Your task to perform on an android device: change the clock display to analog Image 0: 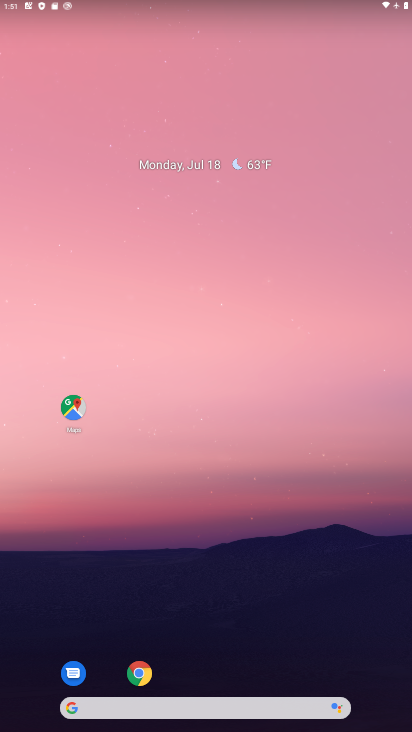
Step 0: drag from (207, 633) to (237, 43)
Your task to perform on an android device: change the clock display to analog Image 1: 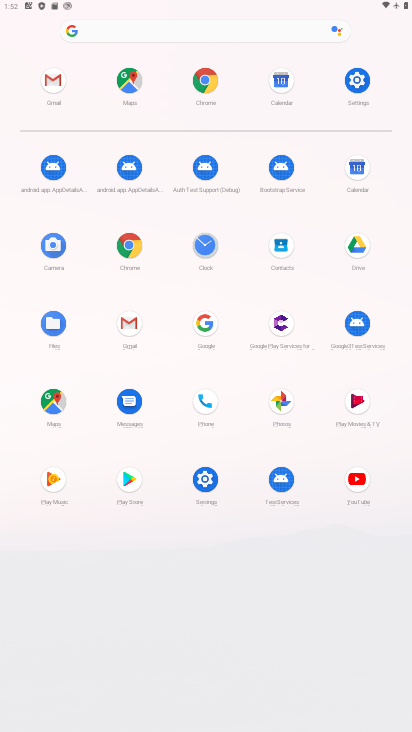
Step 1: click (207, 239)
Your task to perform on an android device: change the clock display to analog Image 2: 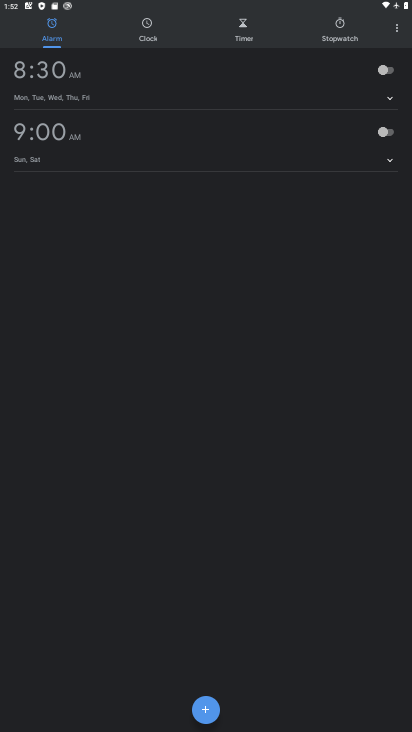
Step 2: click (398, 21)
Your task to perform on an android device: change the clock display to analog Image 3: 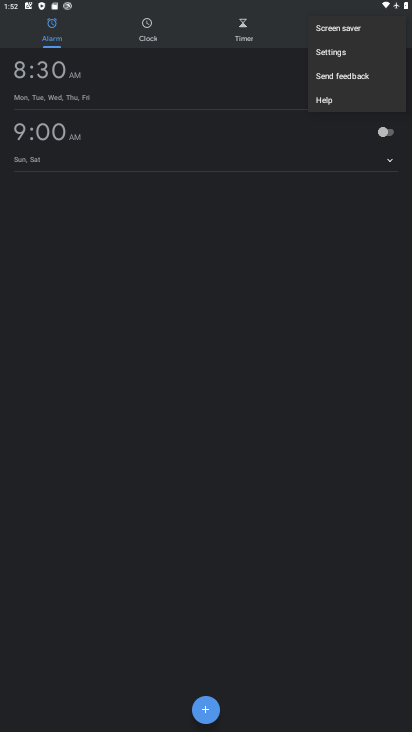
Step 3: click (346, 50)
Your task to perform on an android device: change the clock display to analog Image 4: 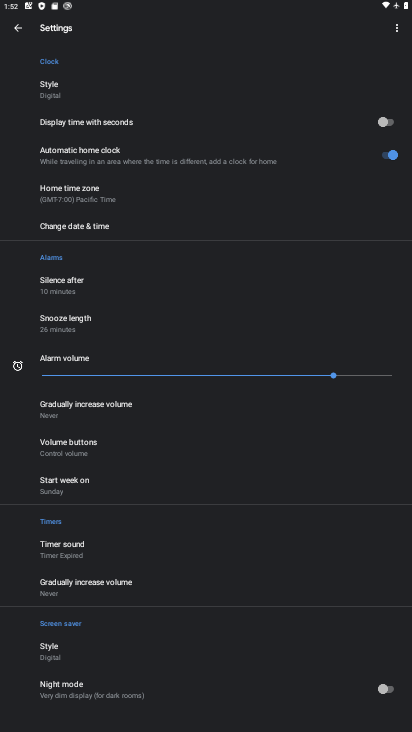
Step 4: click (74, 85)
Your task to perform on an android device: change the clock display to analog Image 5: 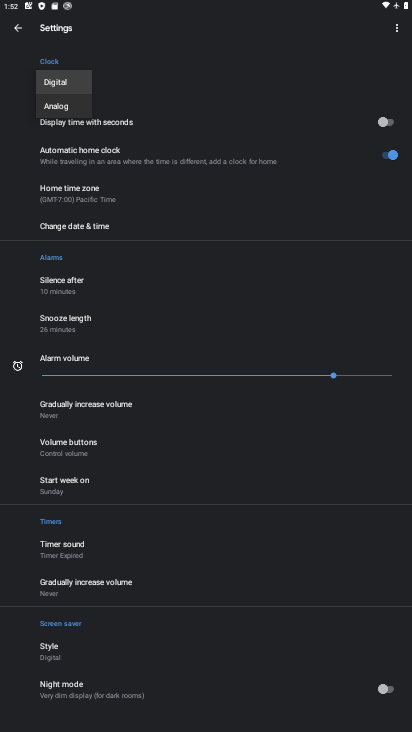
Step 5: click (61, 113)
Your task to perform on an android device: change the clock display to analog Image 6: 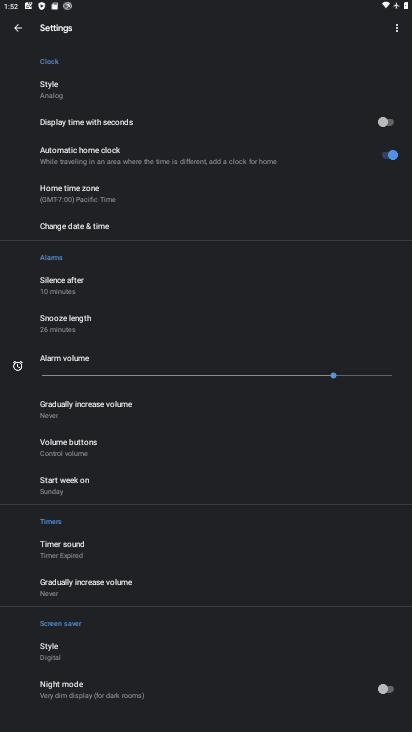
Step 6: task complete